Your task to perform on an android device: read, delete, or share a saved page in the chrome app Image 0: 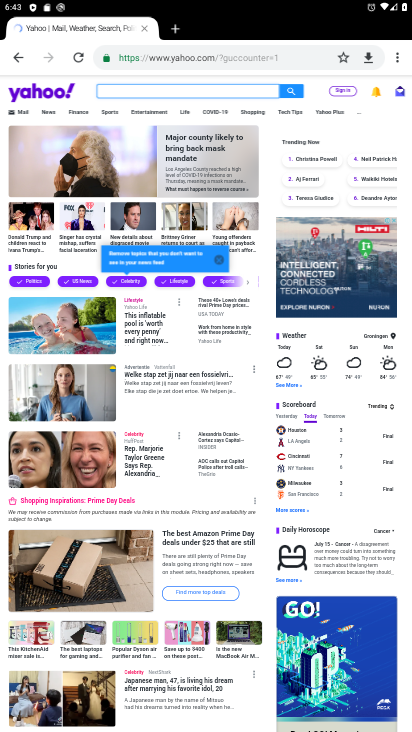
Step 0: press home button
Your task to perform on an android device: read, delete, or share a saved page in the chrome app Image 1: 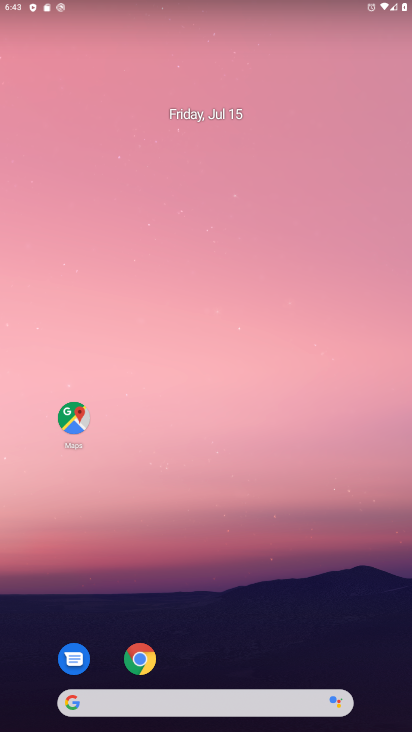
Step 1: click (137, 662)
Your task to perform on an android device: read, delete, or share a saved page in the chrome app Image 2: 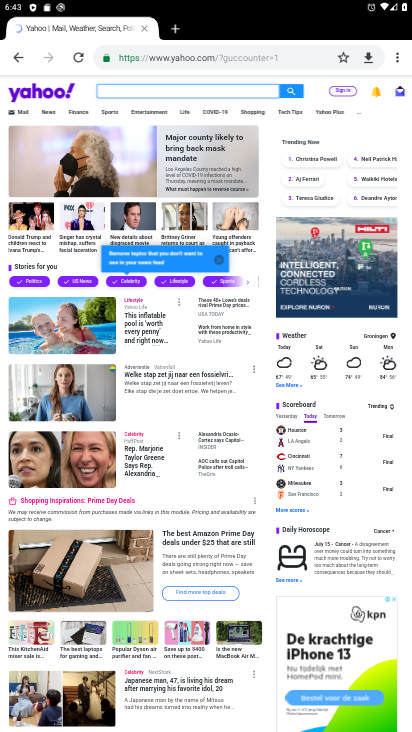
Step 2: click (400, 64)
Your task to perform on an android device: read, delete, or share a saved page in the chrome app Image 3: 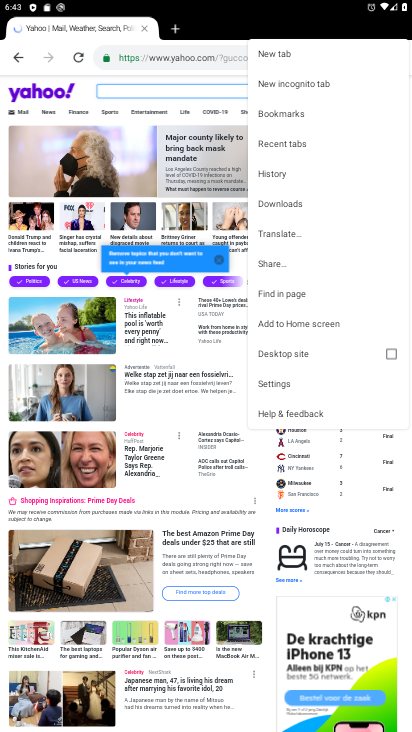
Step 3: click (275, 203)
Your task to perform on an android device: read, delete, or share a saved page in the chrome app Image 4: 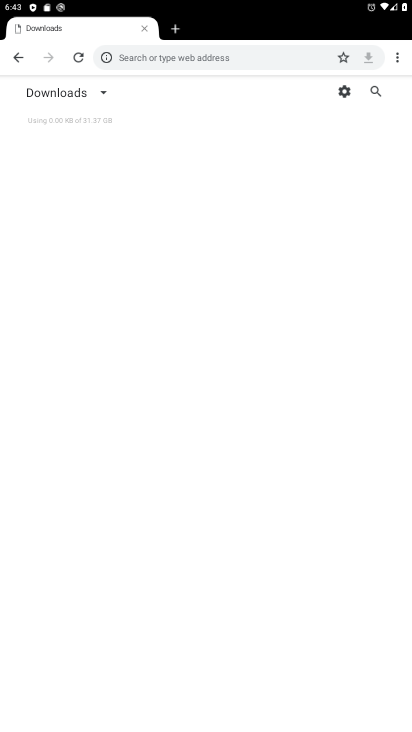
Step 4: click (94, 92)
Your task to perform on an android device: read, delete, or share a saved page in the chrome app Image 5: 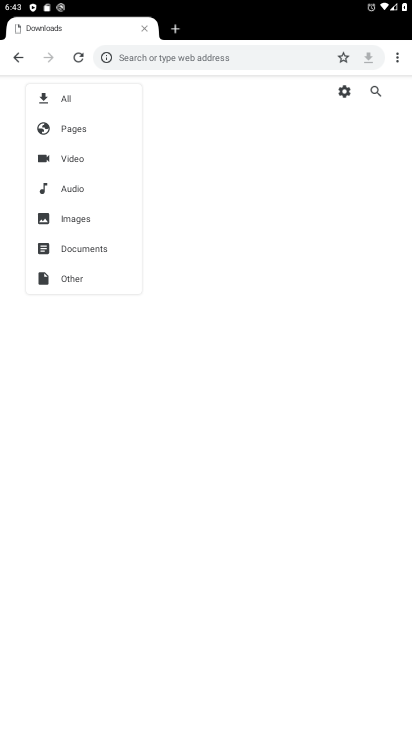
Step 5: click (72, 129)
Your task to perform on an android device: read, delete, or share a saved page in the chrome app Image 6: 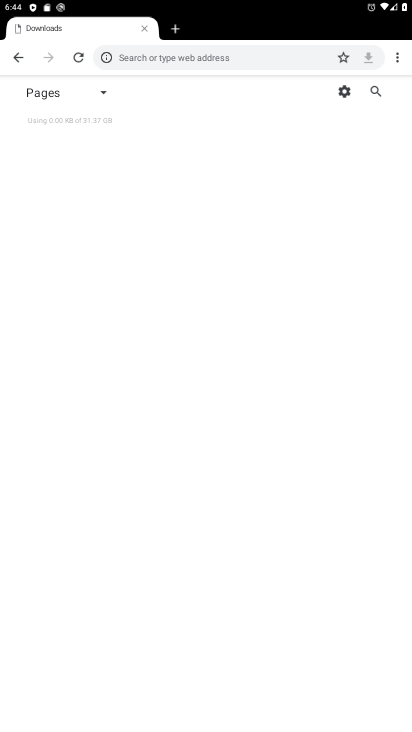
Step 6: task complete